Your task to perform on an android device: open a bookmark in the chrome app Image 0: 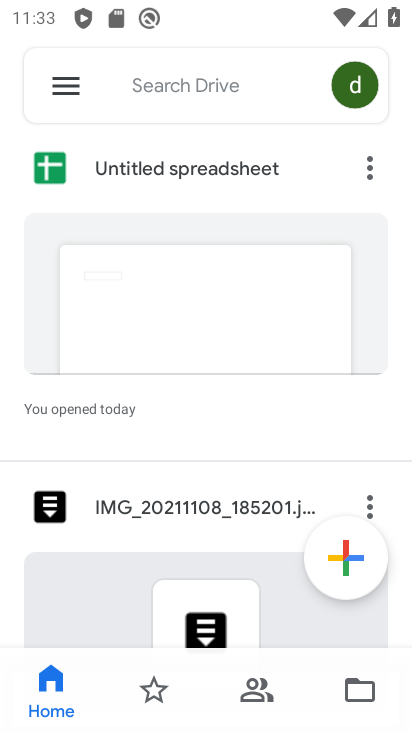
Step 0: press home button
Your task to perform on an android device: open a bookmark in the chrome app Image 1: 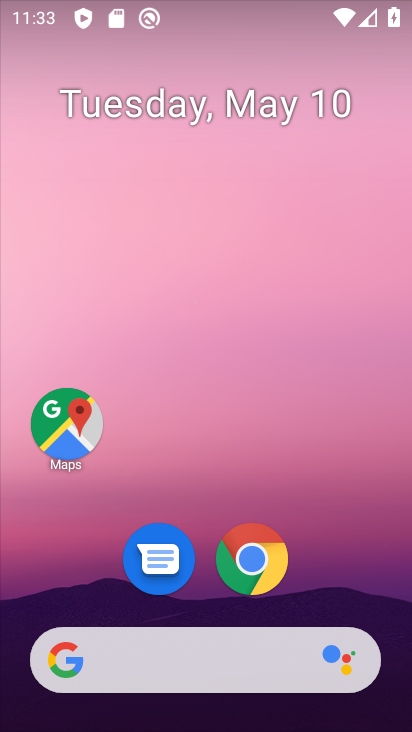
Step 1: click (265, 579)
Your task to perform on an android device: open a bookmark in the chrome app Image 2: 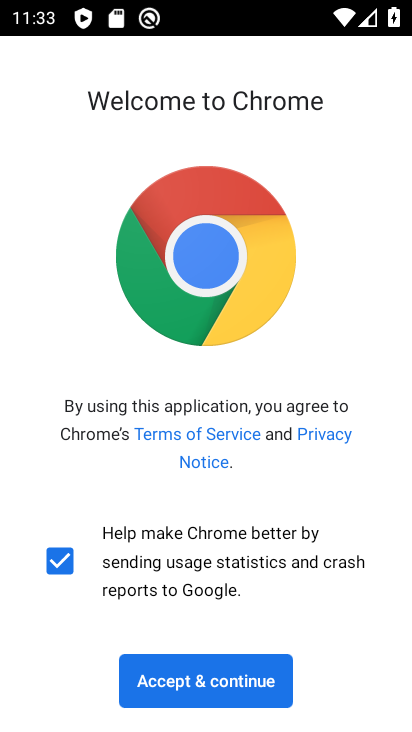
Step 2: click (264, 681)
Your task to perform on an android device: open a bookmark in the chrome app Image 3: 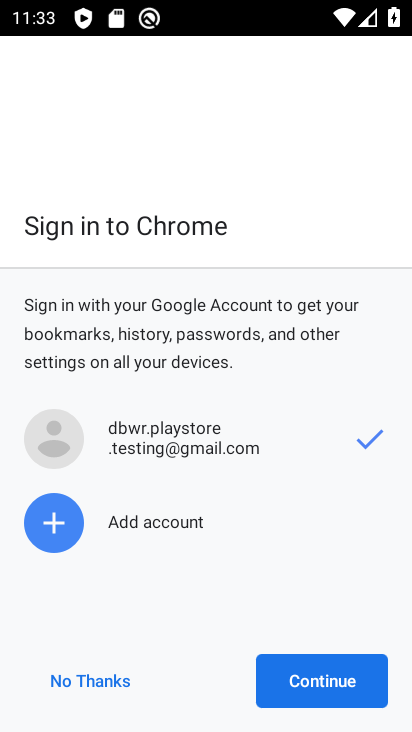
Step 3: click (323, 705)
Your task to perform on an android device: open a bookmark in the chrome app Image 4: 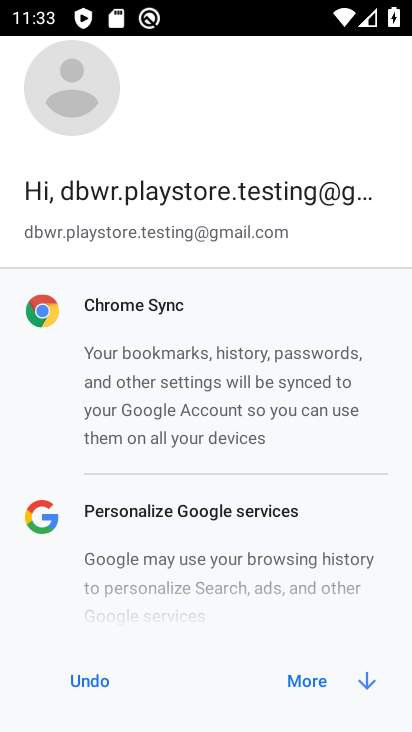
Step 4: click (316, 691)
Your task to perform on an android device: open a bookmark in the chrome app Image 5: 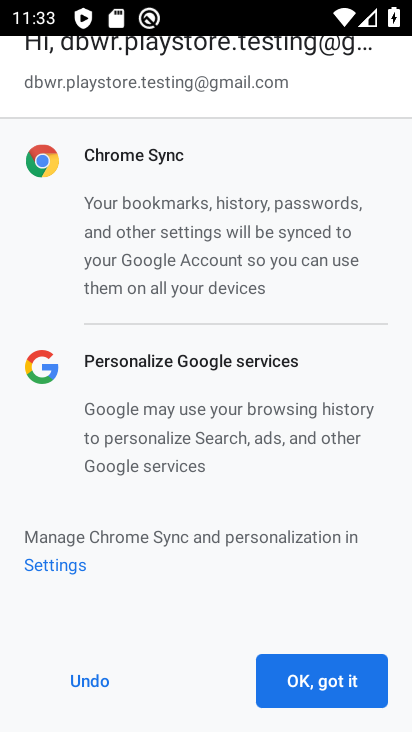
Step 5: click (316, 691)
Your task to perform on an android device: open a bookmark in the chrome app Image 6: 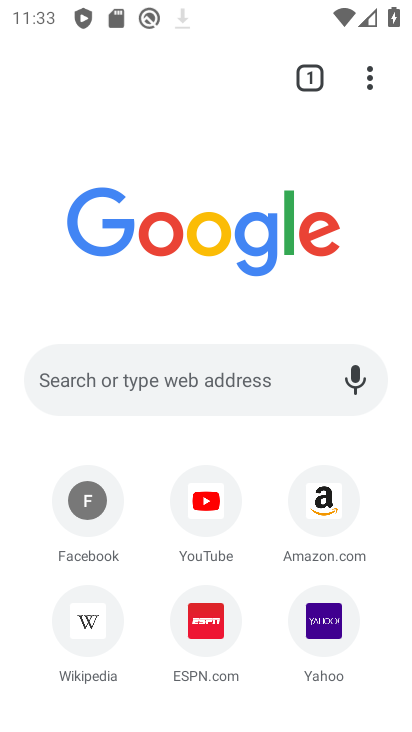
Step 6: task complete